Your task to perform on an android device: What's the weather? Image 0: 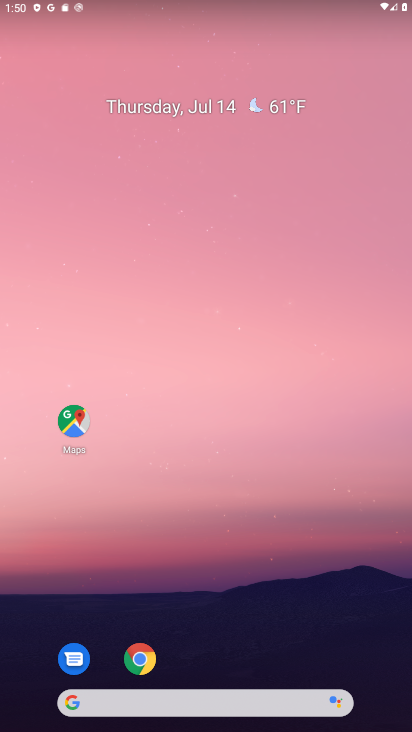
Step 0: click (229, 699)
Your task to perform on an android device: What's the weather? Image 1: 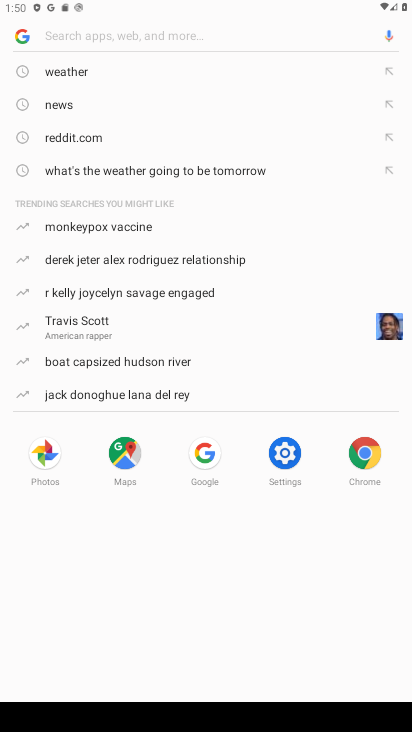
Step 1: click (40, 71)
Your task to perform on an android device: What's the weather? Image 2: 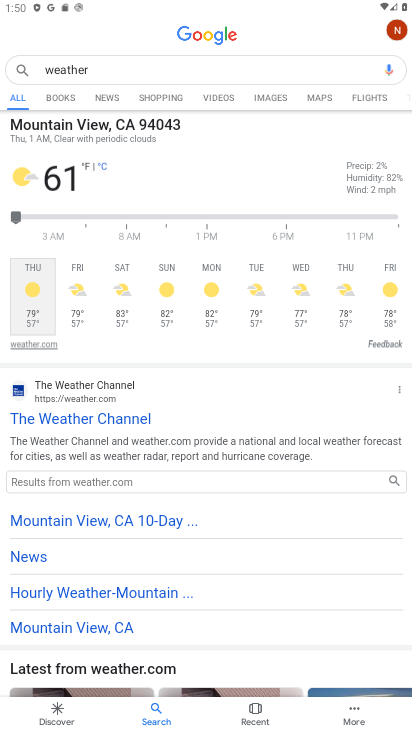
Step 2: task complete